Your task to perform on an android device: Go to network settings Image 0: 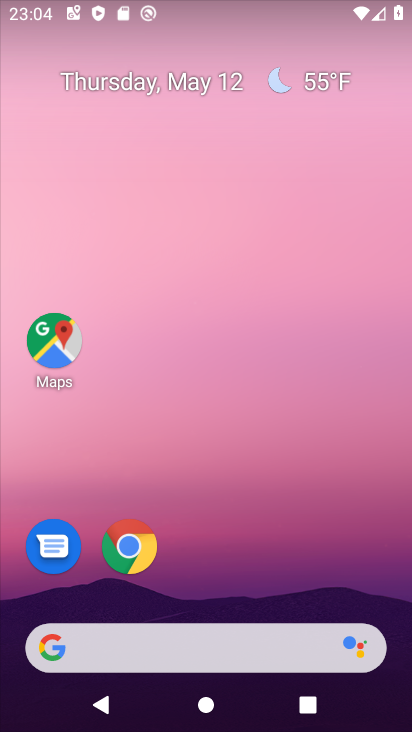
Step 0: drag from (132, 551) to (185, 257)
Your task to perform on an android device: Go to network settings Image 1: 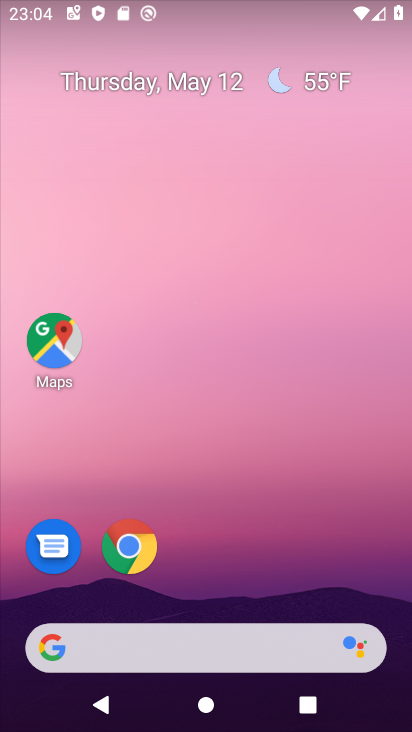
Step 1: drag from (114, 591) to (153, 134)
Your task to perform on an android device: Go to network settings Image 2: 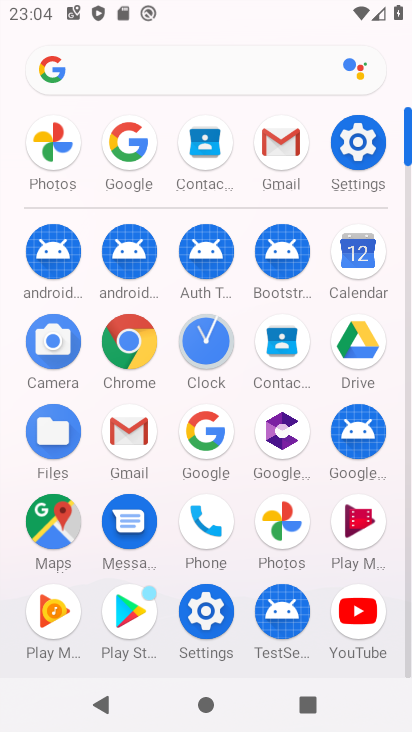
Step 2: click (353, 143)
Your task to perform on an android device: Go to network settings Image 3: 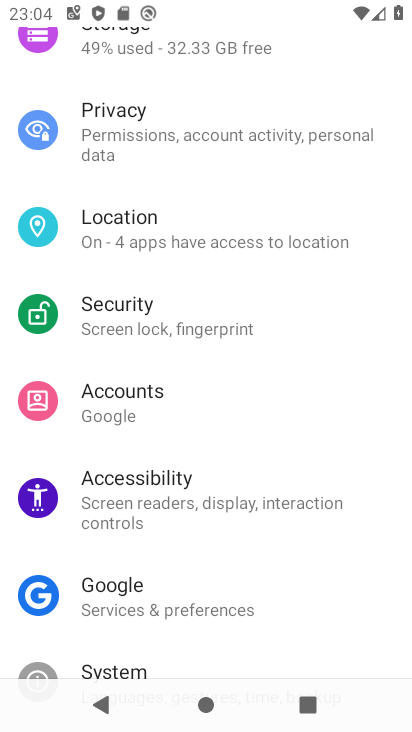
Step 3: drag from (225, 105) to (238, 547)
Your task to perform on an android device: Go to network settings Image 4: 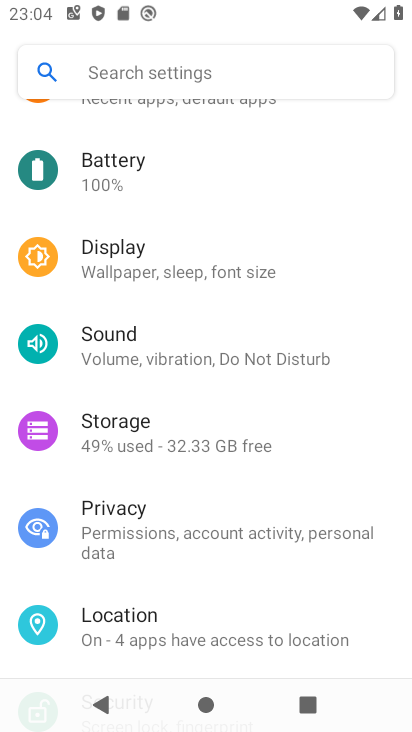
Step 4: drag from (184, 116) to (216, 494)
Your task to perform on an android device: Go to network settings Image 5: 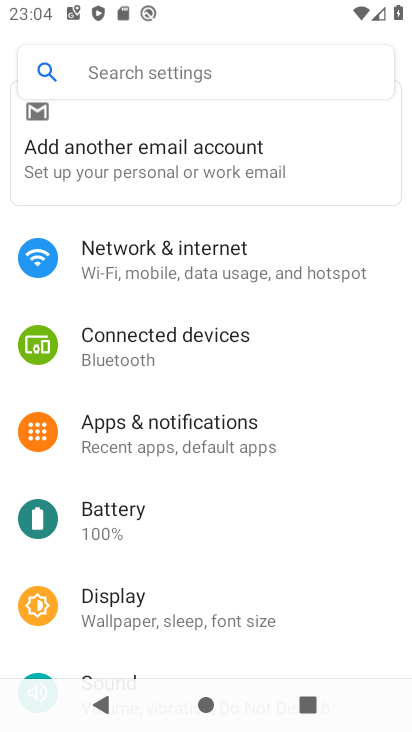
Step 5: click (154, 197)
Your task to perform on an android device: Go to network settings Image 6: 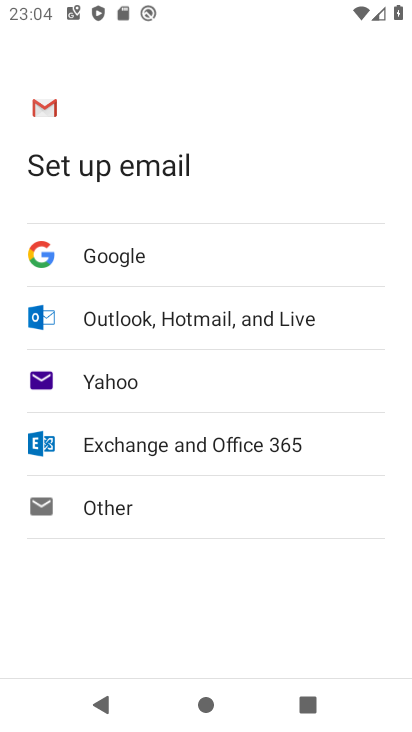
Step 6: click (98, 703)
Your task to perform on an android device: Go to network settings Image 7: 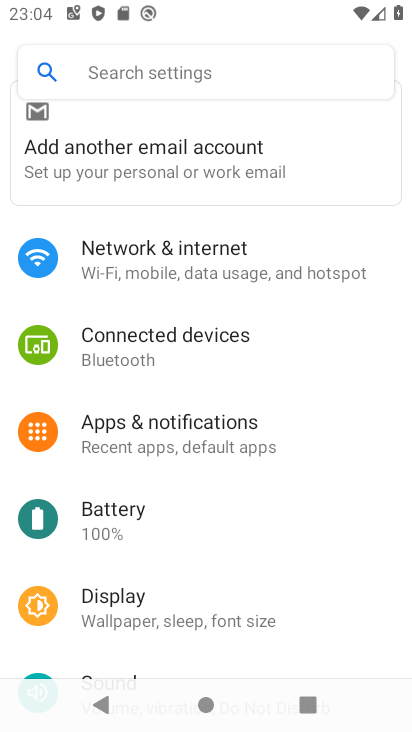
Step 7: click (214, 249)
Your task to perform on an android device: Go to network settings Image 8: 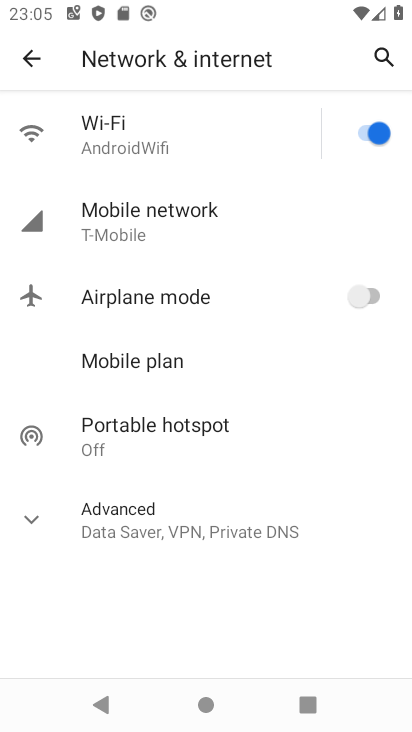
Step 8: click (180, 219)
Your task to perform on an android device: Go to network settings Image 9: 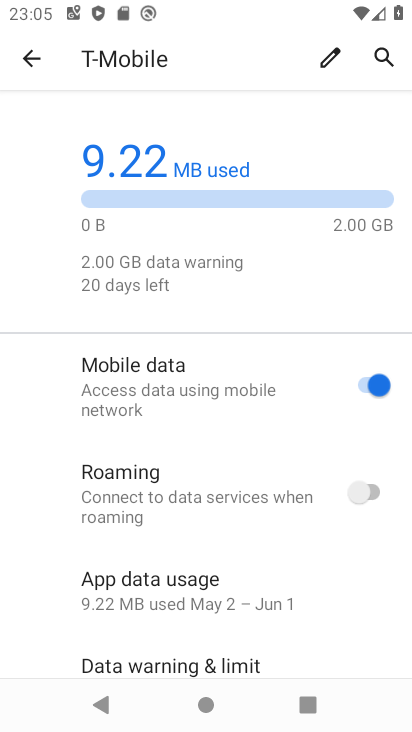
Step 9: task complete